Your task to perform on an android device: set default search engine in the chrome app Image 0: 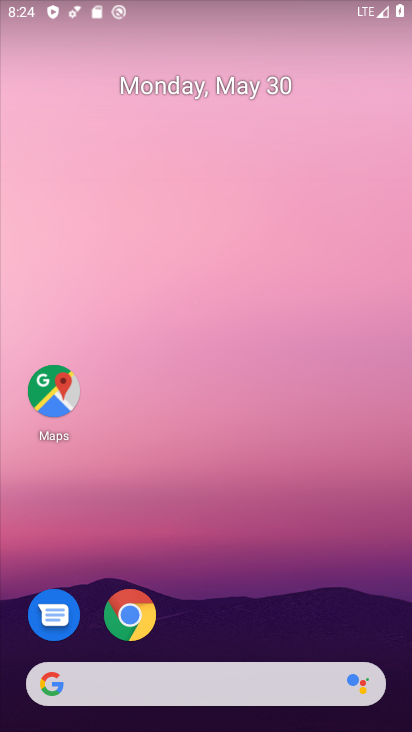
Step 0: click (137, 623)
Your task to perform on an android device: set default search engine in the chrome app Image 1: 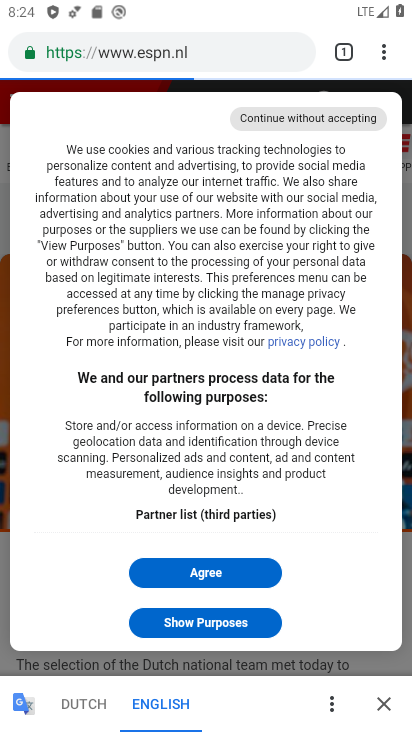
Step 1: click (384, 46)
Your task to perform on an android device: set default search engine in the chrome app Image 2: 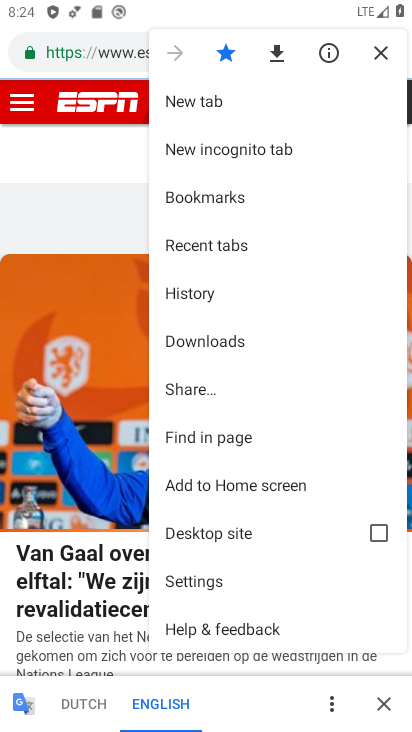
Step 2: click (208, 577)
Your task to perform on an android device: set default search engine in the chrome app Image 3: 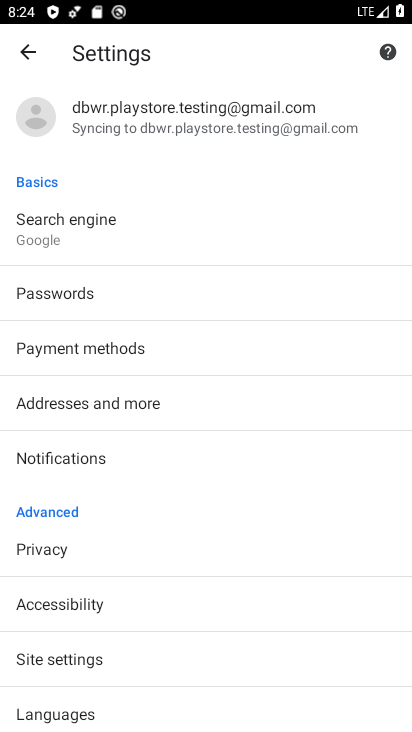
Step 3: click (107, 232)
Your task to perform on an android device: set default search engine in the chrome app Image 4: 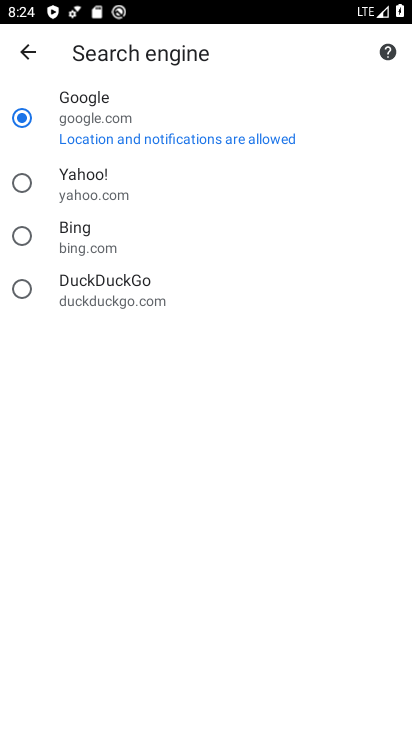
Step 4: click (85, 200)
Your task to perform on an android device: set default search engine in the chrome app Image 5: 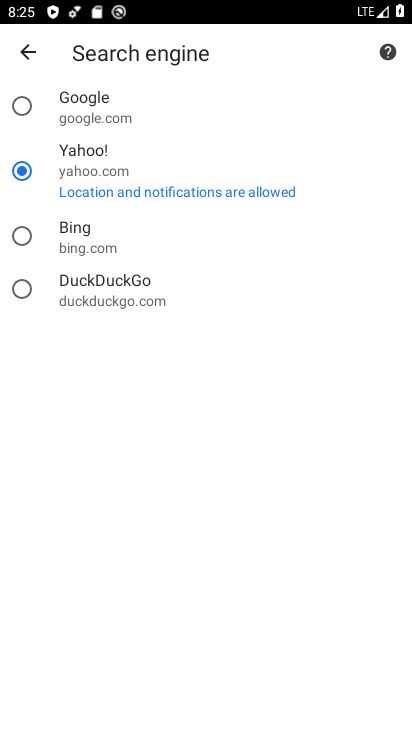
Step 5: task complete